Your task to perform on an android device: Add "acer predator" to the cart on ebay Image 0: 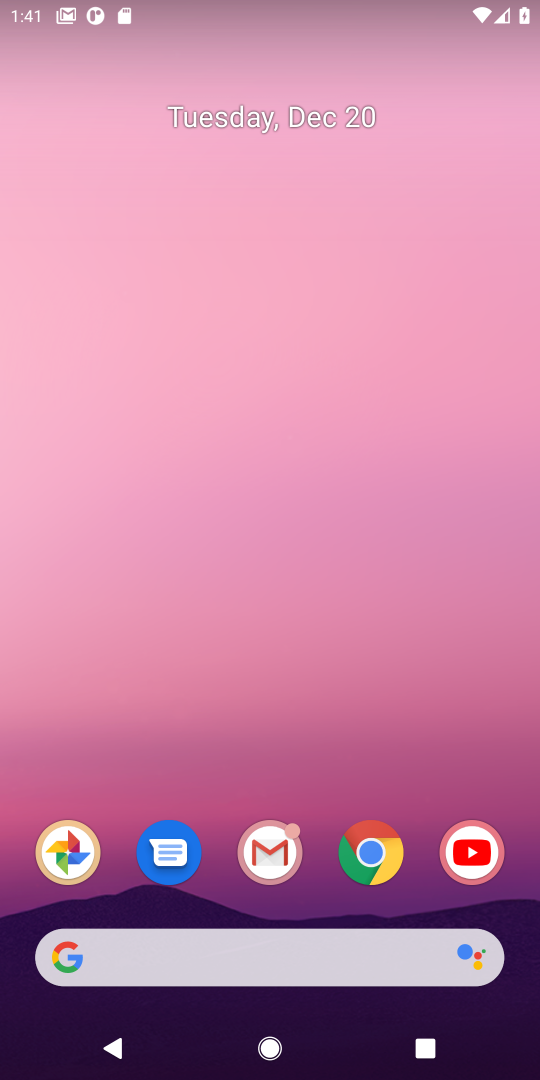
Step 0: click (382, 863)
Your task to perform on an android device: Add "acer predator" to the cart on ebay Image 1: 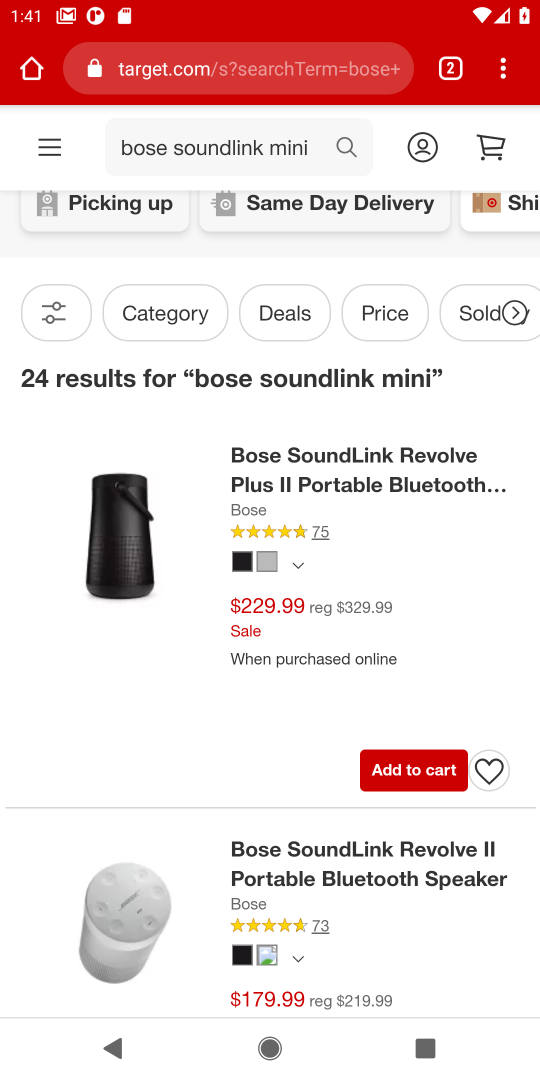
Step 1: click (221, 82)
Your task to perform on an android device: Add "acer predator" to the cart on ebay Image 2: 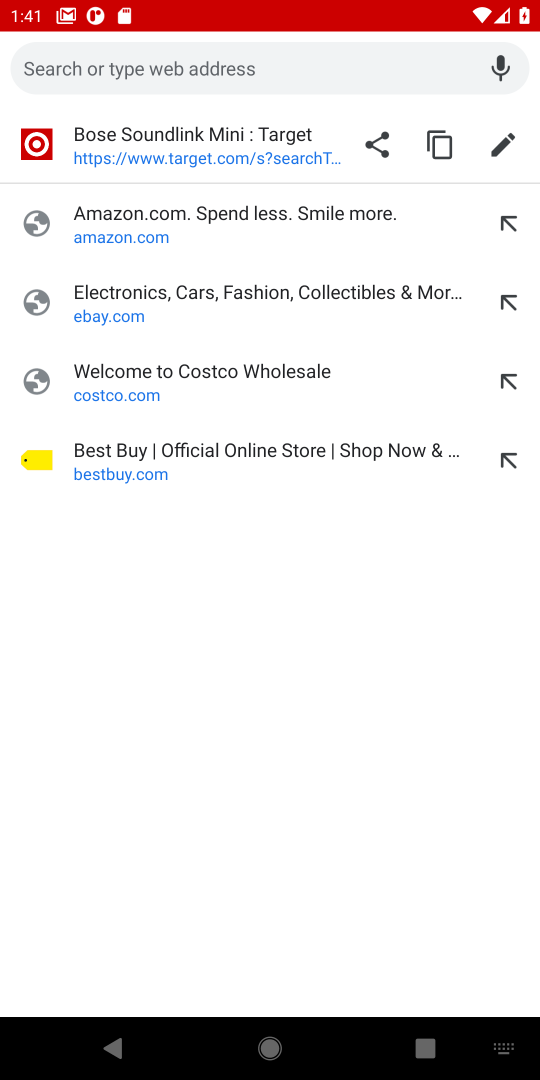
Step 2: click (85, 312)
Your task to perform on an android device: Add "acer predator" to the cart on ebay Image 3: 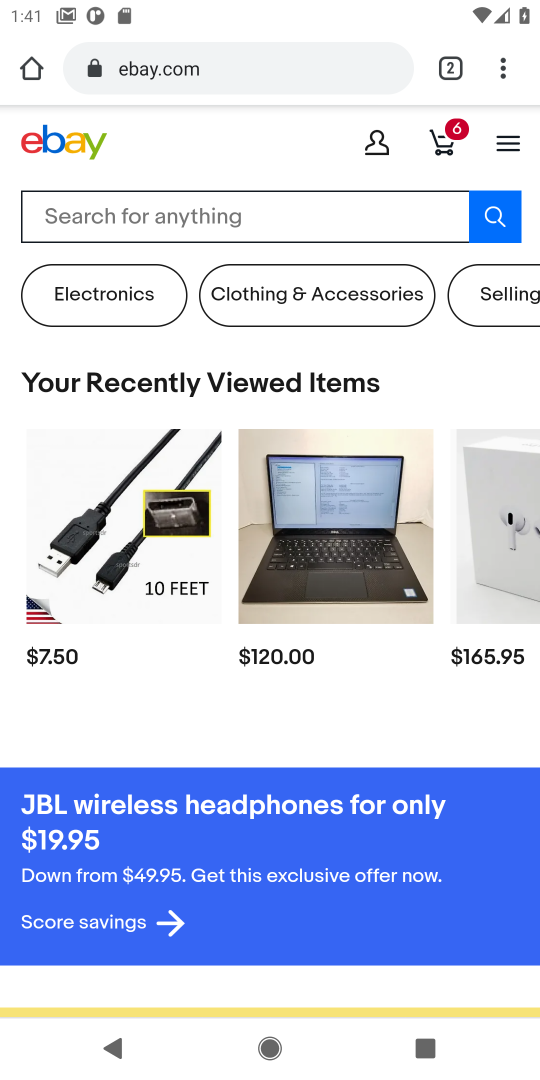
Step 3: click (126, 207)
Your task to perform on an android device: Add "acer predator" to the cart on ebay Image 4: 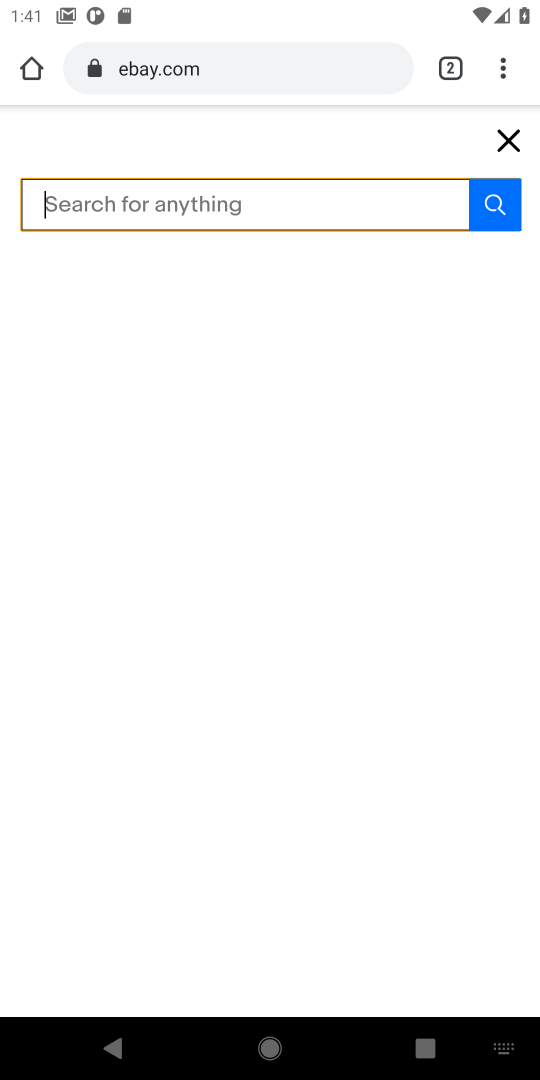
Step 4: type "acer predator"
Your task to perform on an android device: Add "acer predator" to the cart on ebay Image 5: 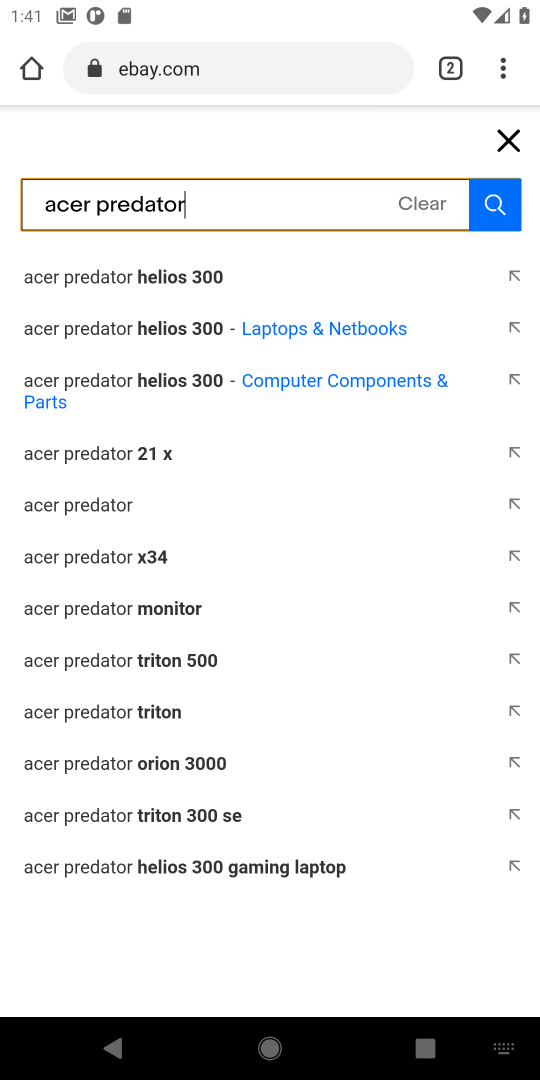
Step 5: click (65, 507)
Your task to perform on an android device: Add "acer predator" to the cart on ebay Image 6: 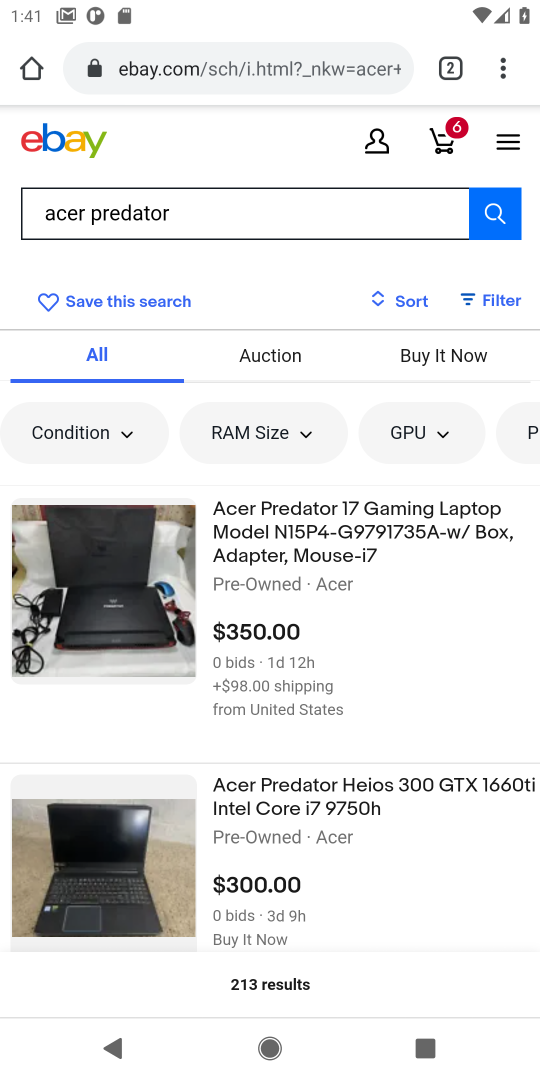
Step 6: drag from (244, 676) to (244, 439)
Your task to perform on an android device: Add "acer predator" to the cart on ebay Image 7: 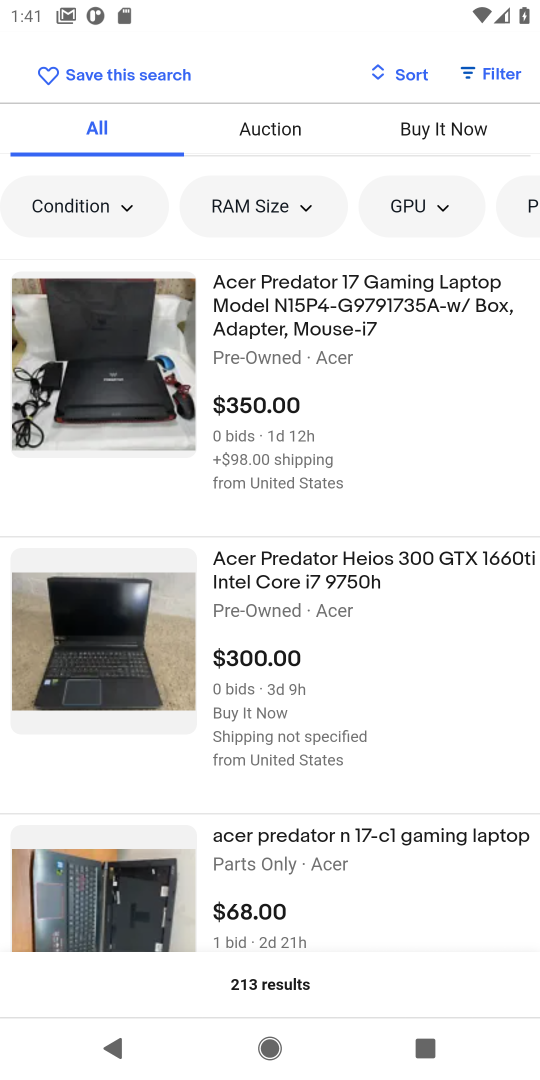
Step 7: drag from (233, 668) to (218, 413)
Your task to perform on an android device: Add "acer predator" to the cart on ebay Image 8: 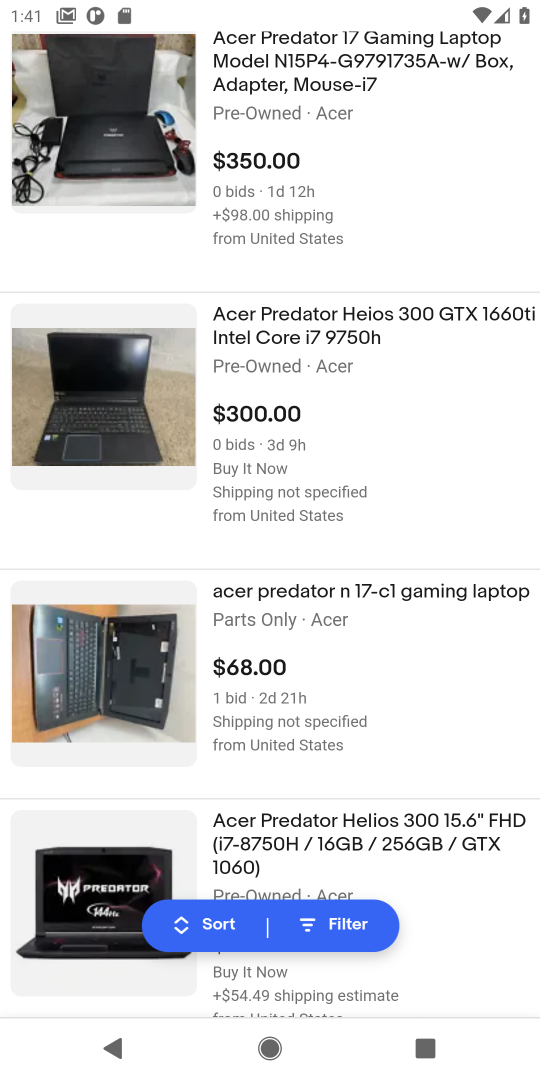
Step 8: drag from (241, 712) to (230, 400)
Your task to perform on an android device: Add "acer predator" to the cart on ebay Image 9: 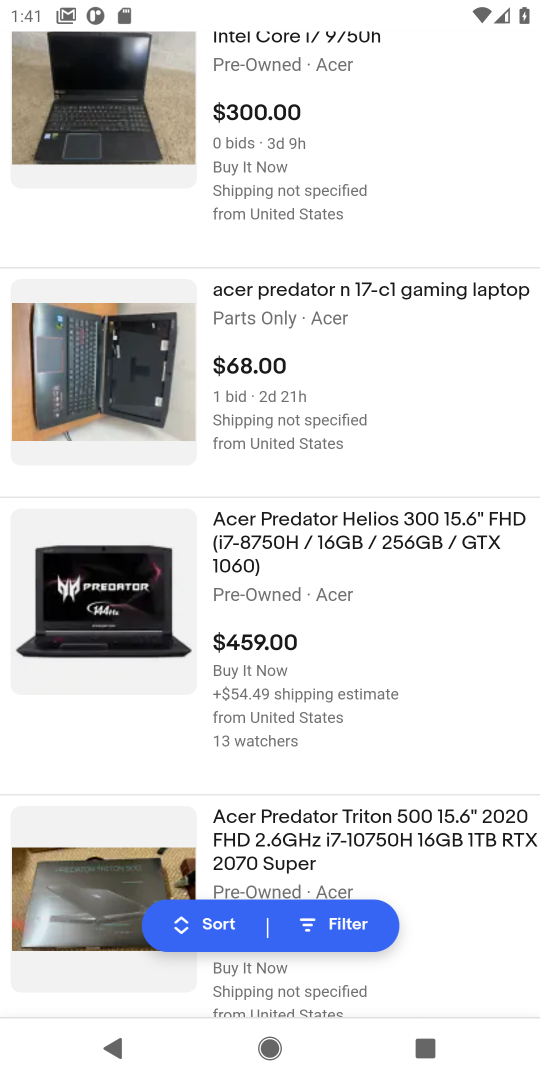
Step 9: click (245, 556)
Your task to perform on an android device: Add "acer predator" to the cart on ebay Image 10: 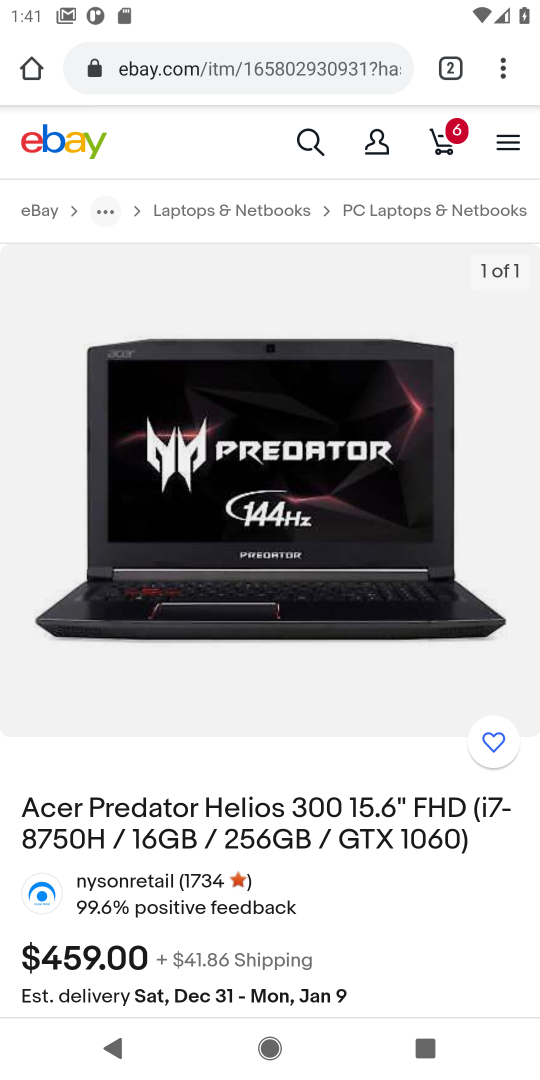
Step 10: drag from (218, 823) to (192, 365)
Your task to perform on an android device: Add "acer predator" to the cart on ebay Image 11: 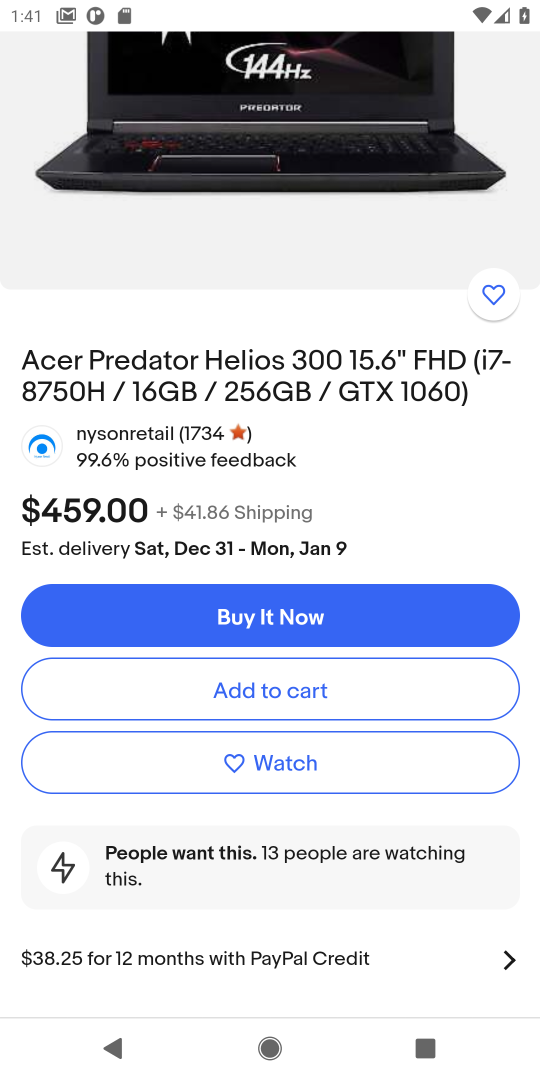
Step 11: click (209, 697)
Your task to perform on an android device: Add "acer predator" to the cart on ebay Image 12: 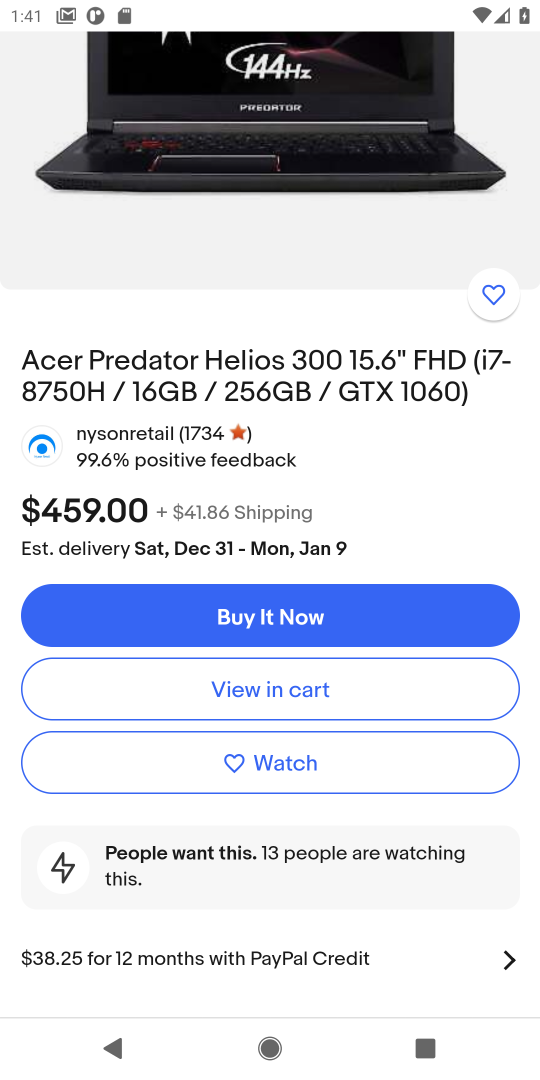
Step 12: task complete